Your task to perform on an android device: Do I have any events tomorrow? Image 0: 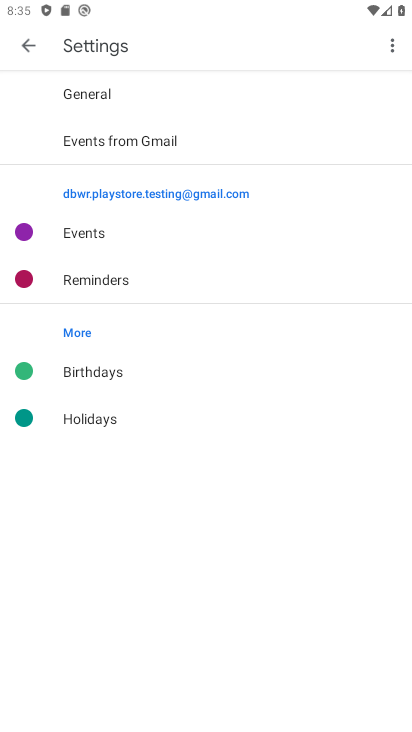
Step 0: press home button
Your task to perform on an android device: Do I have any events tomorrow? Image 1: 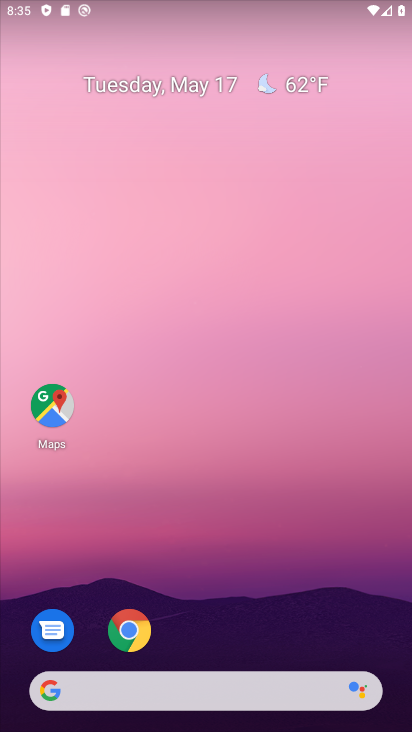
Step 1: drag from (187, 659) to (357, 174)
Your task to perform on an android device: Do I have any events tomorrow? Image 2: 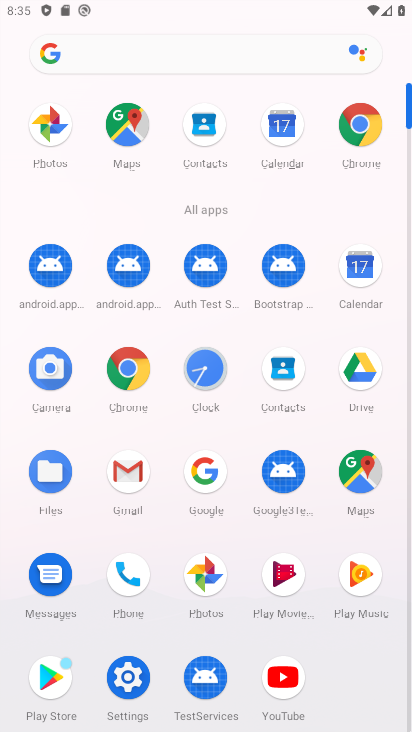
Step 2: click (362, 275)
Your task to perform on an android device: Do I have any events tomorrow? Image 3: 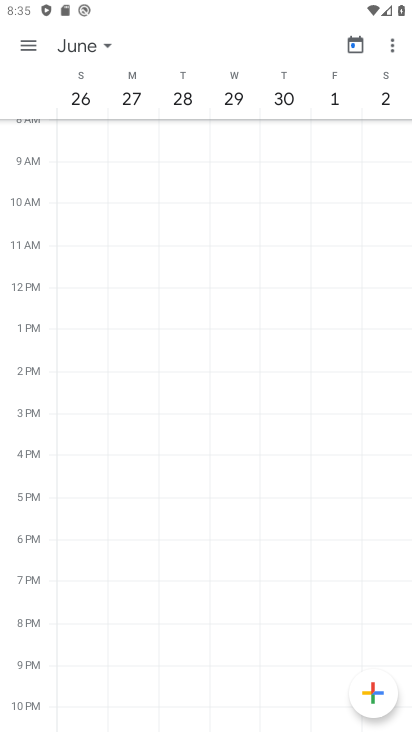
Step 3: click (31, 43)
Your task to perform on an android device: Do I have any events tomorrow? Image 4: 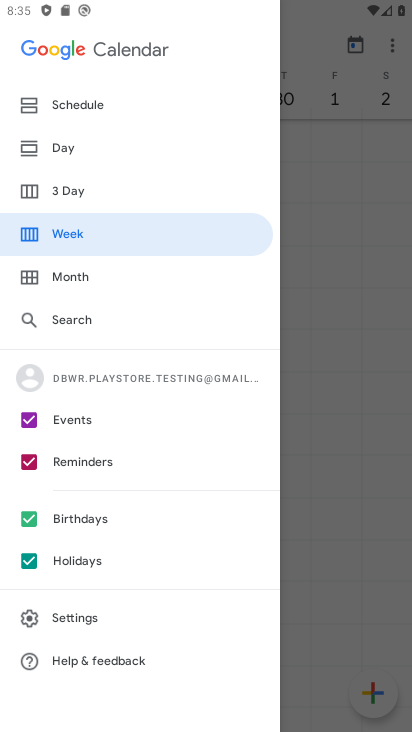
Step 4: click (126, 158)
Your task to perform on an android device: Do I have any events tomorrow? Image 5: 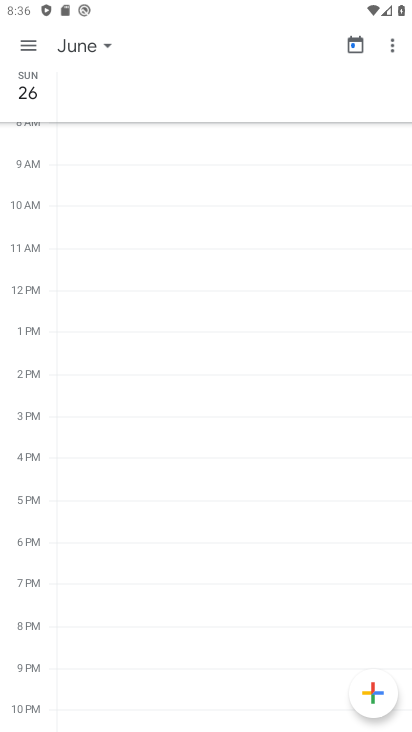
Step 5: click (89, 41)
Your task to perform on an android device: Do I have any events tomorrow? Image 6: 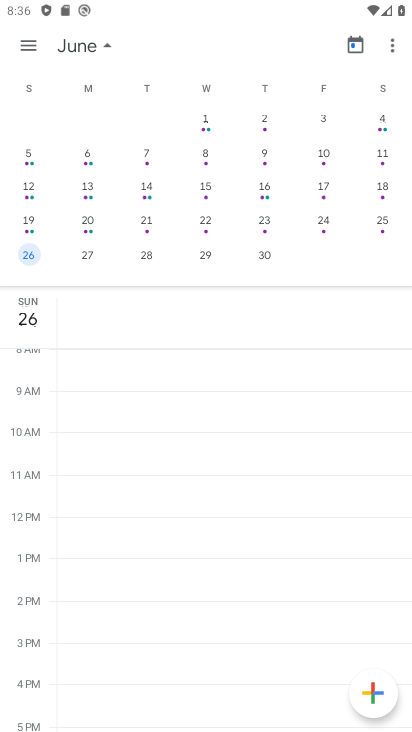
Step 6: drag from (48, 234) to (411, 220)
Your task to perform on an android device: Do I have any events tomorrow? Image 7: 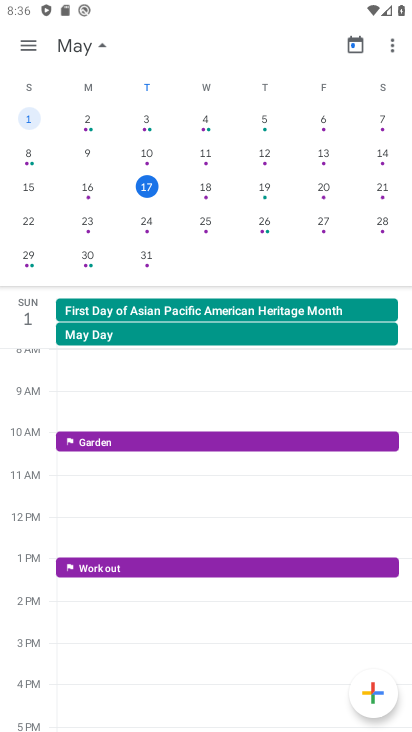
Step 7: click (211, 192)
Your task to perform on an android device: Do I have any events tomorrow? Image 8: 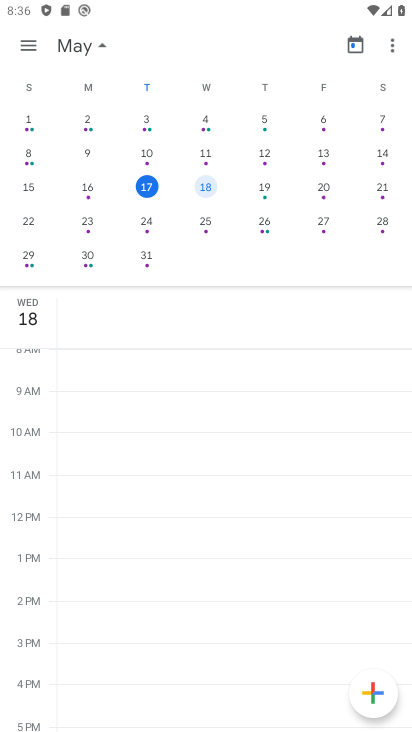
Step 8: click (87, 43)
Your task to perform on an android device: Do I have any events tomorrow? Image 9: 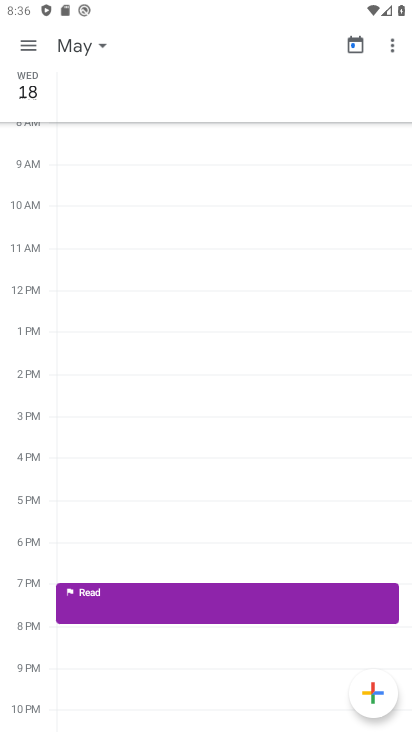
Step 9: click (31, 41)
Your task to perform on an android device: Do I have any events tomorrow? Image 10: 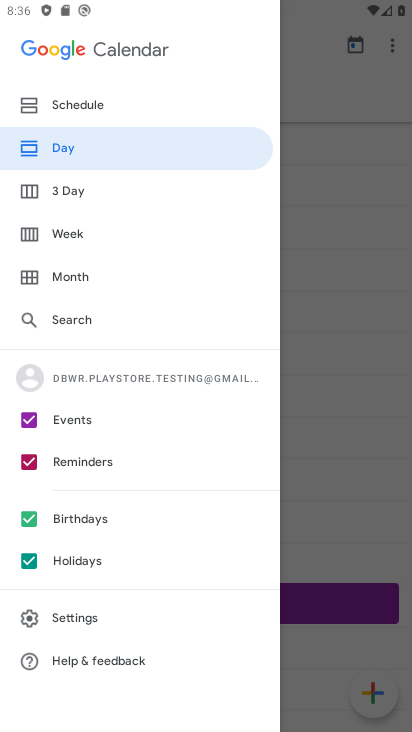
Step 10: click (88, 463)
Your task to perform on an android device: Do I have any events tomorrow? Image 11: 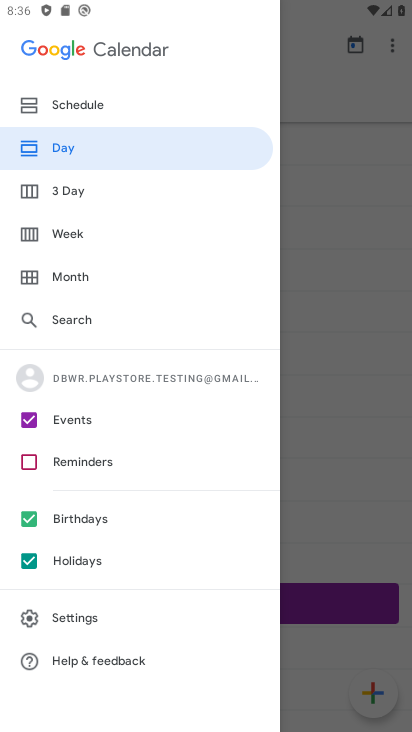
Step 11: click (80, 516)
Your task to perform on an android device: Do I have any events tomorrow? Image 12: 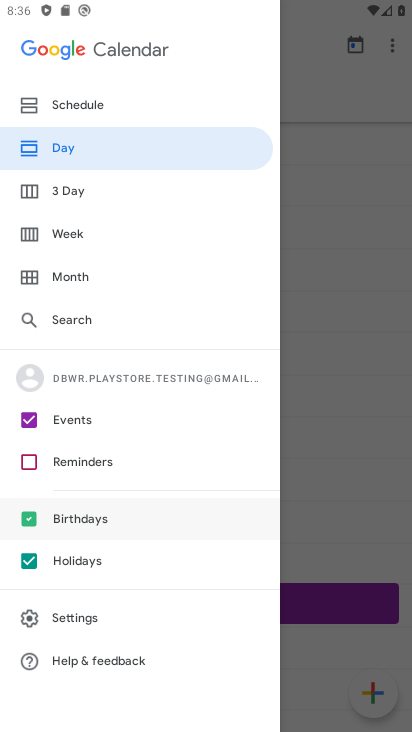
Step 12: click (61, 574)
Your task to perform on an android device: Do I have any events tomorrow? Image 13: 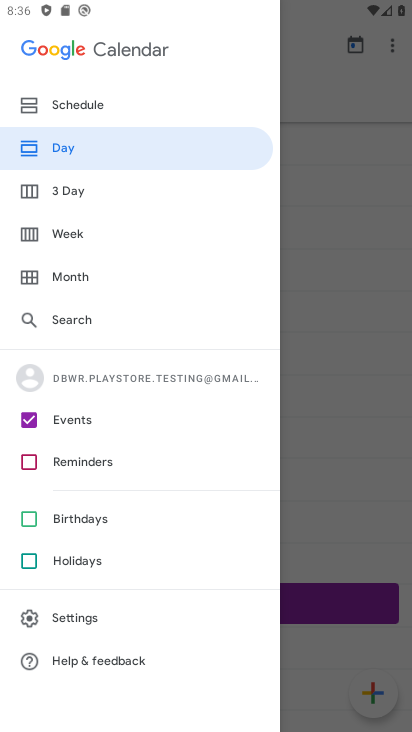
Step 13: click (370, 448)
Your task to perform on an android device: Do I have any events tomorrow? Image 14: 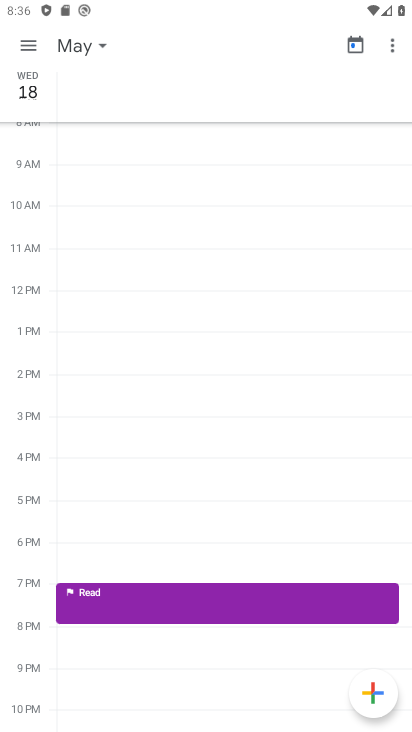
Step 14: task complete